Your task to perform on an android device: Go to accessibility settings Image 0: 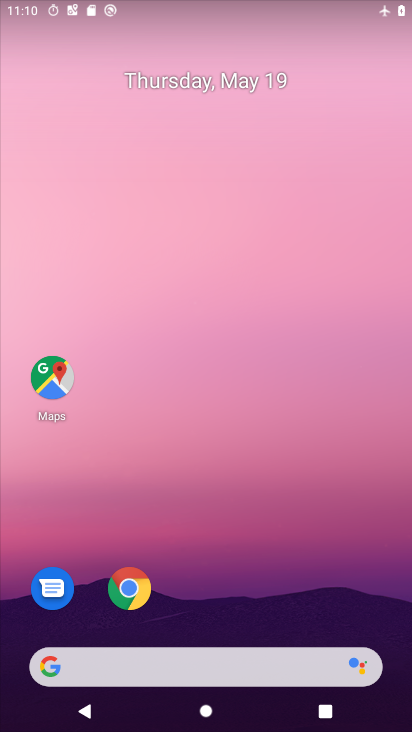
Step 0: press home button
Your task to perform on an android device: Go to accessibility settings Image 1: 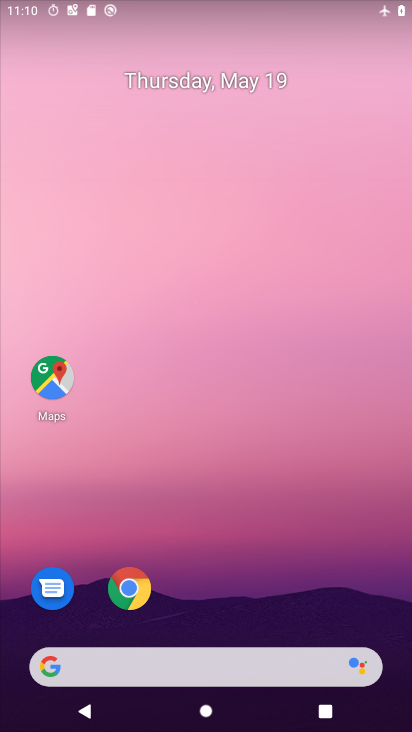
Step 1: drag from (138, 663) to (336, 44)
Your task to perform on an android device: Go to accessibility settings Image 2: 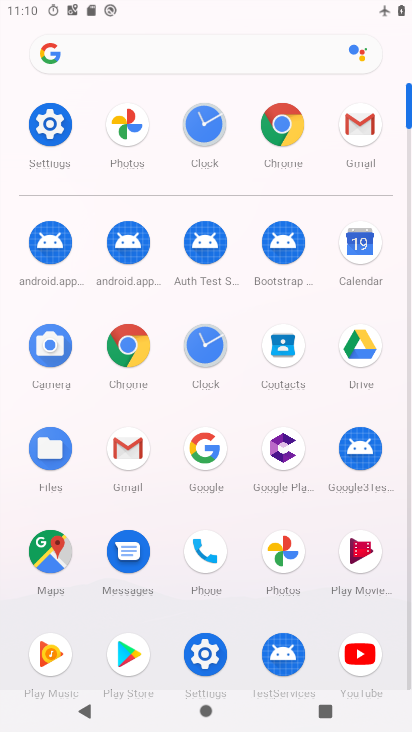
Step 2: click (59, 129)
Your task to perform on an android device: Go to accessibility settings Image 3: 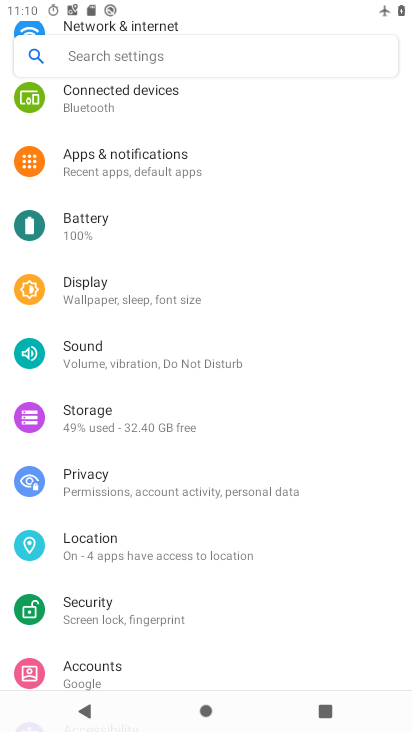
Step 3: drag from (255, 604) to (335, 114)
Your task to perform on an android device: Go to accessibility settings Image 4: 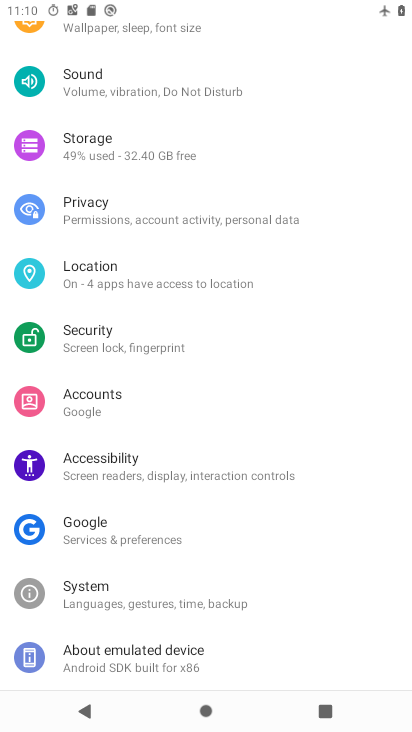
Step 4: click (118, 464)
Your task to perform on an android device: Go to accessibility settings Image 5: 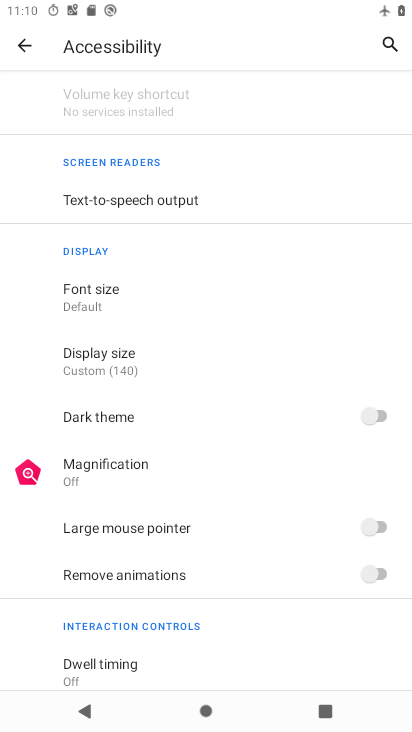
Step 5: task complete